Your task to perform on an android device: turn off priority inbox in the gmail app Image 0: 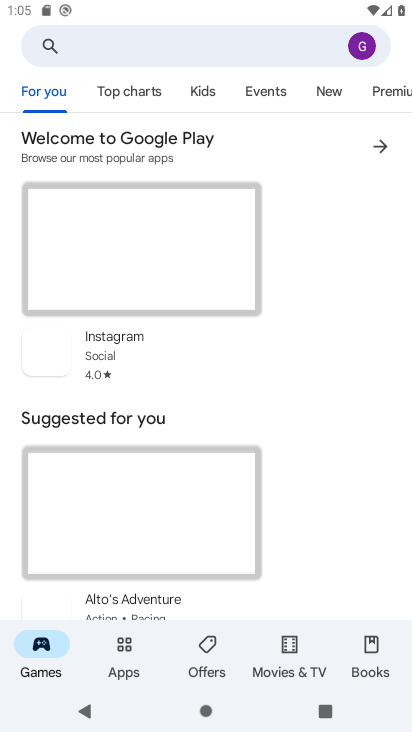
Step 0: press home button
Your task to perform on an android device: turn off priority inbox in the gmail app Image 1: 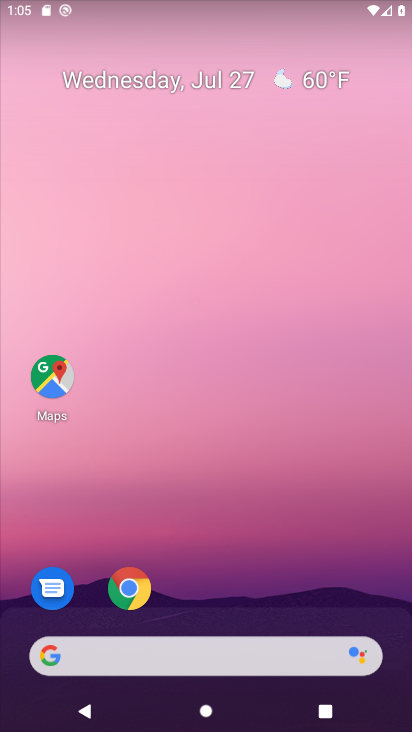
Step 1: drag from (233, 626) to (208, 30)
Your task to perform on an android device: turn off priority inbox in the gmail app Image 2: 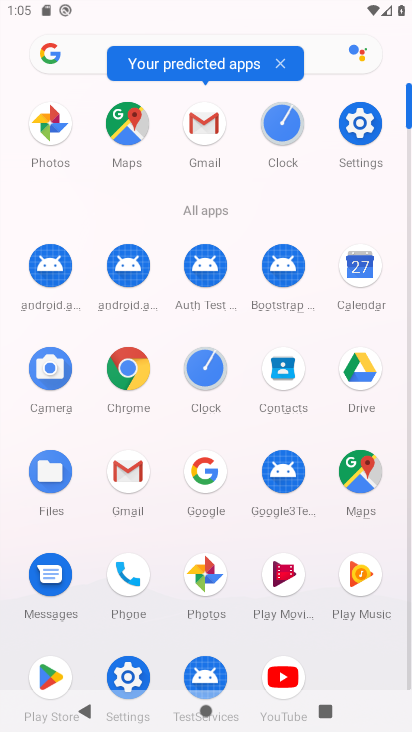
Step 2: click (201, 115)
Your task to perform on an android device: turn off priority inbox in the gmail app Image 3: 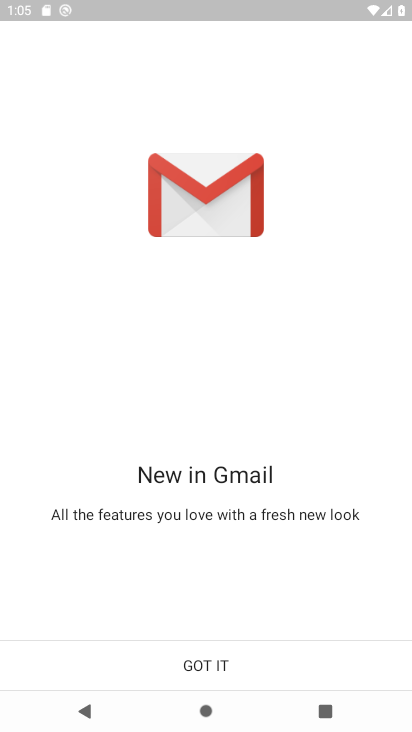
Step 3: click (203, 660)
Your task to perform on an android device: turn off priority inbox in the gmail app Image 4: 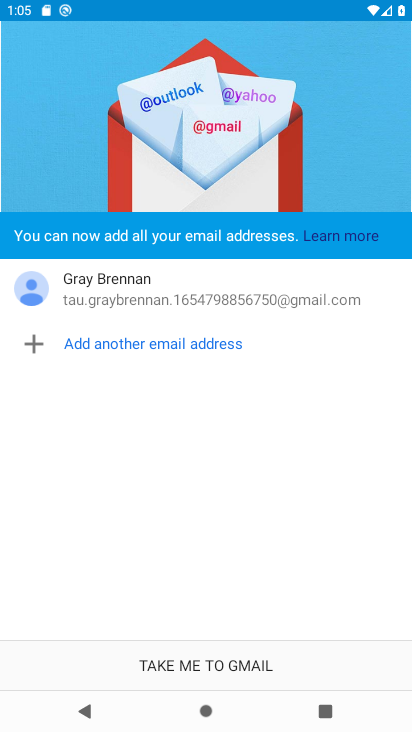
Step 4: click (203, 660)
Your task to perform on an android device: turn off priority inbox in the gmail app Image 5: 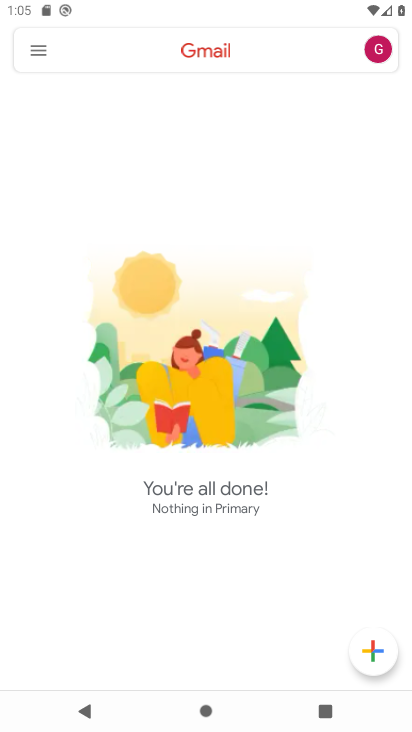
Step 5: click (36, 53)
Your task to perform on an android device: turn off priority inbox in the gmail app Image 6: 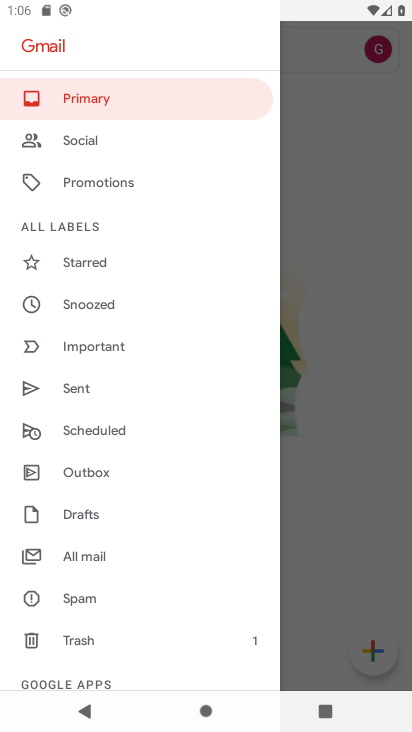
Step 6: drag from (111, 665) to (160, 178)
Your task to perform on an android device: turn off priority inbox in the gmail app Image 7: 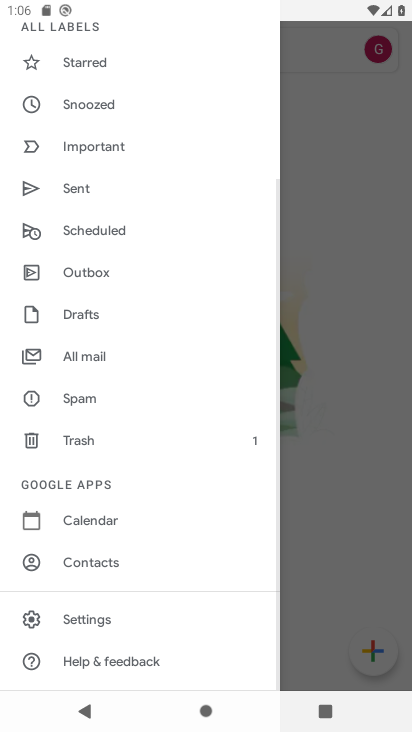
Step 7: click (76, 616)
Your task to perform on an android device: turn off priority inbox in the gmail app Image 8: 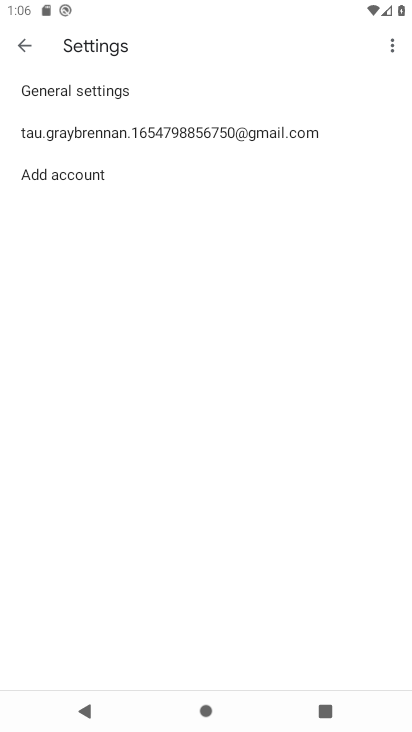
Step 8: click (226, 131)
Your task to perform on an android device: turn off priority inbox in the gmail app Image 9: 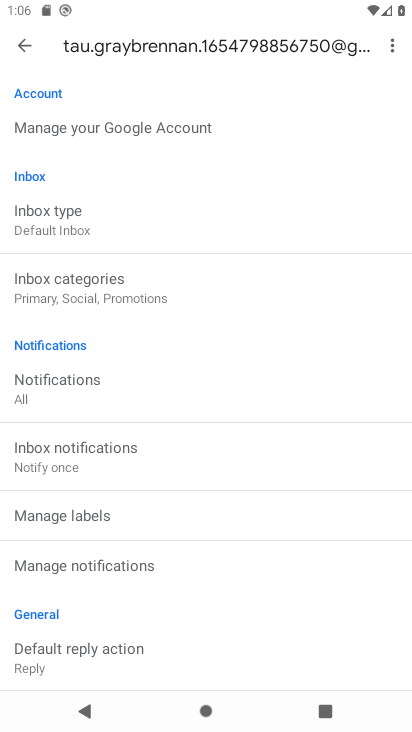
Step 9: click (206, 218)
Your task to perform on an android device: turn off priority inbox in the gmail app Image 10: 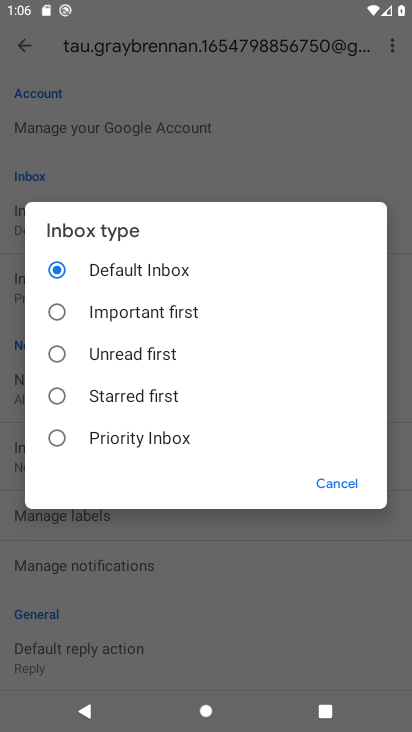
Step 10: task complete